Your task to perform on an android device: What is the recent news? Image 0: 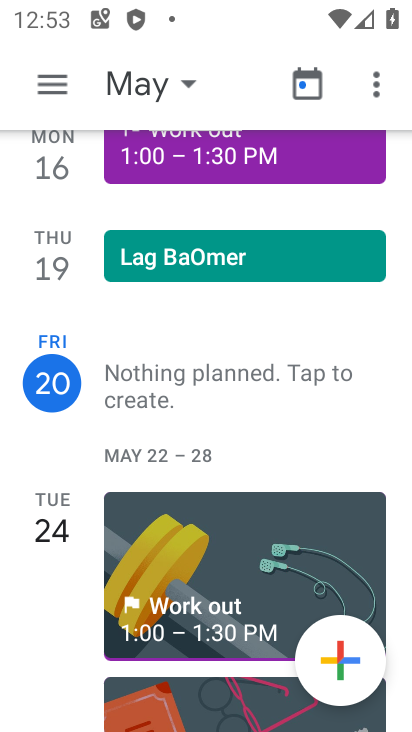
Step 0: press home button
Your task to perform on an android device: What is the recent news? Image 1: 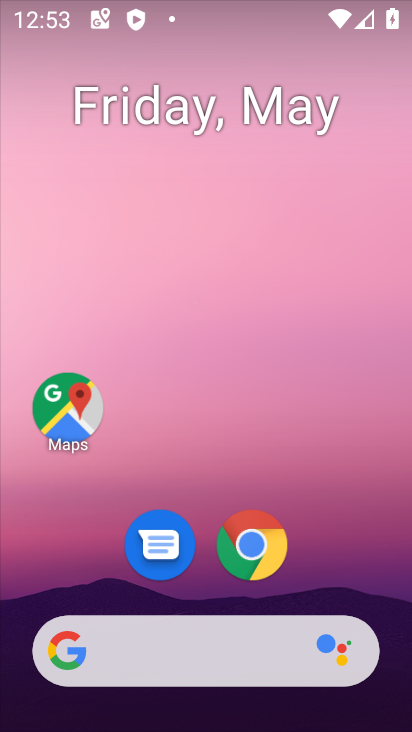
Step 1: click (276, 634)
Your task to perform on an android device: What is the recent news? Image 2: 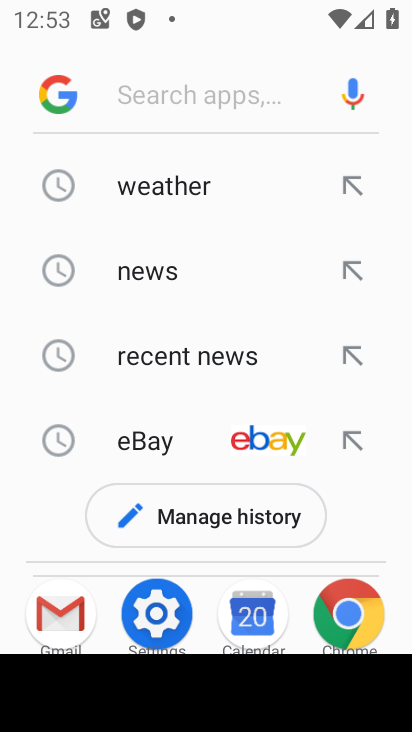
Step 2: click (191, 343)
Your task to perform on an android device: What is the recent news? Image 3: 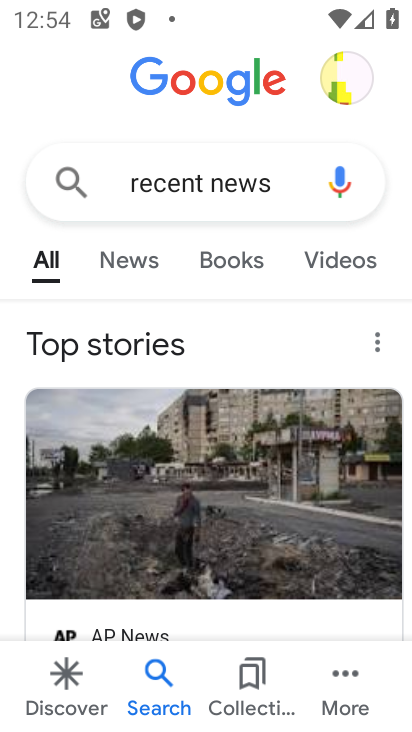
Step 3: task complete